Your task to perform on an android device: change alarm snooze length Image 0: 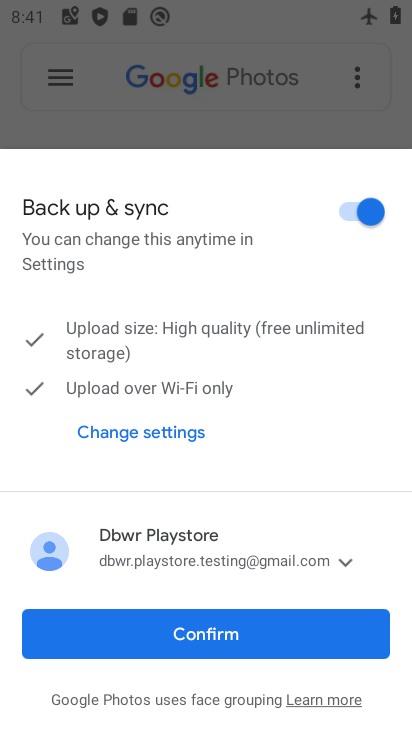
Step 0: press home button
Your task to perform on an android device: change alarm snooze length Image 1: 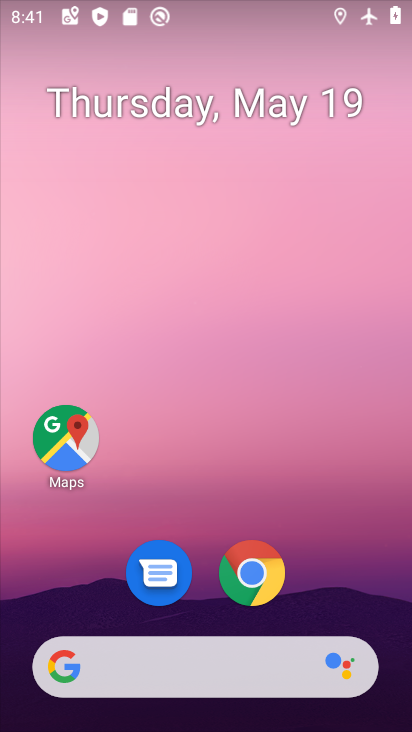
Step 1: drag from (330, 618) to (354, 7)
Your task to perform on an android device: change alarm snooze length Image 2: 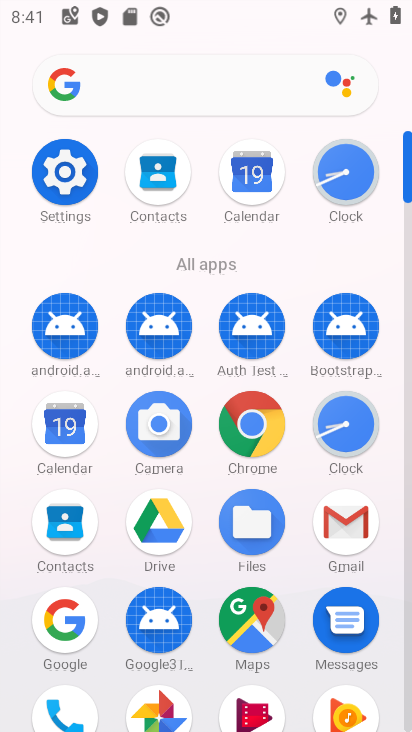
Step 2: click (340, 167)
Your task to perform on an android device: change alarm snooze length Image 3: 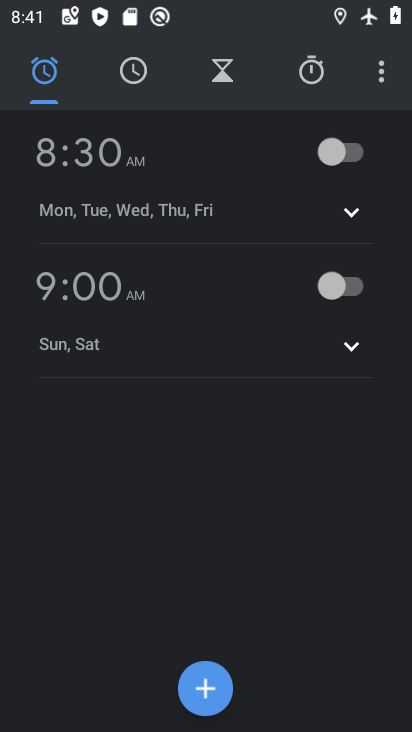
Step 3: click (382, 75)
Your task to perform on an android device: change alarm snooze length Image 4: 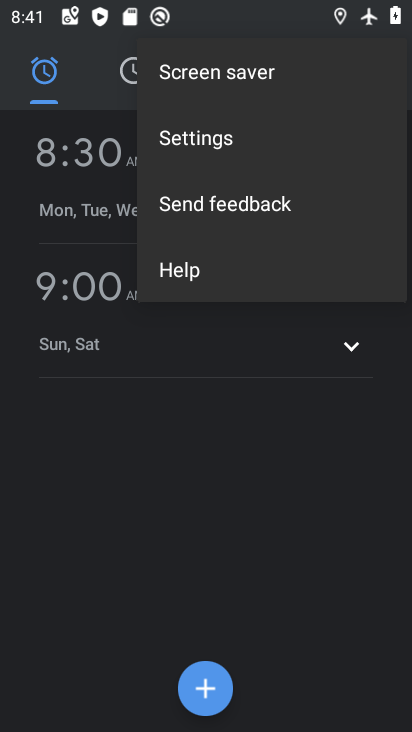
Step 4: click (207, 153)
Your task to perform on an android device: change alarm snooze length Image 5: 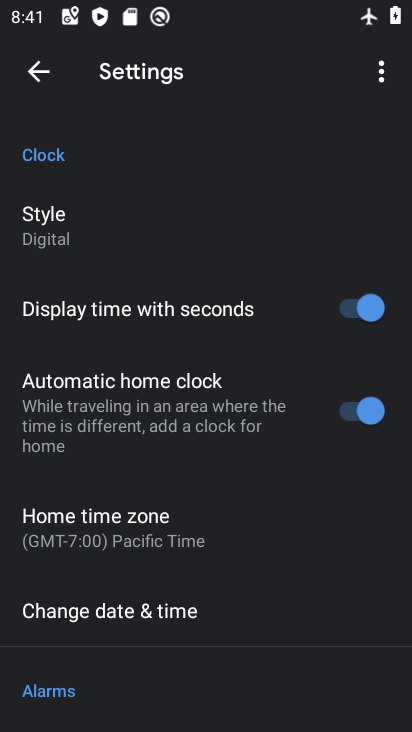
Step 5: drag from (189, 518) to (191, 5)
Your task to perform on an android device: change alarm snooze length Image 6: 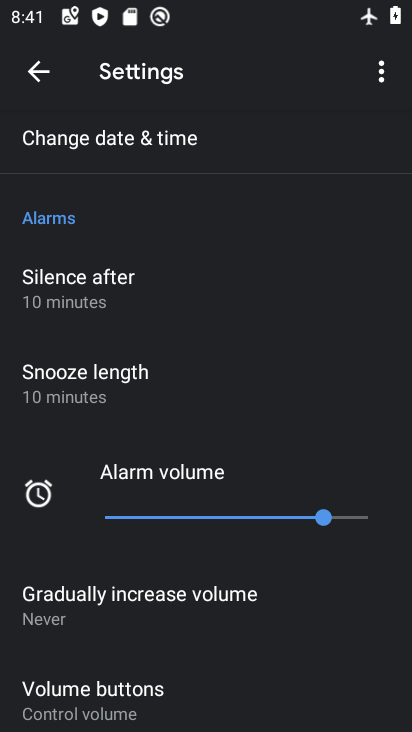
Step 6: click (17, 388)
Your task to perform on an android device: change alarm snooze length Image 7: 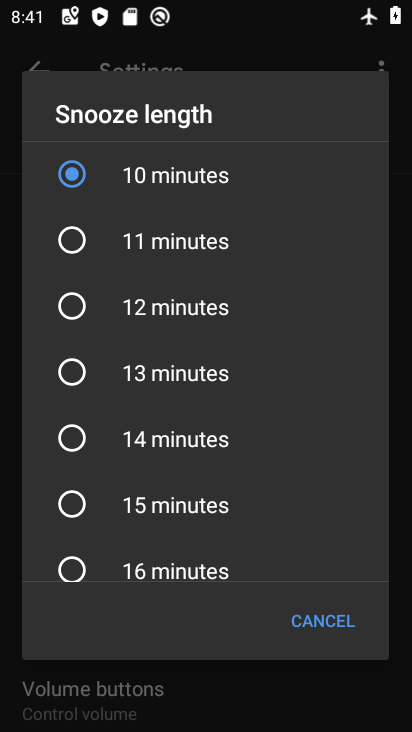
Step 7: click (76, 308)
Your task to perform on an android device: change alarm snooze length Image 8: 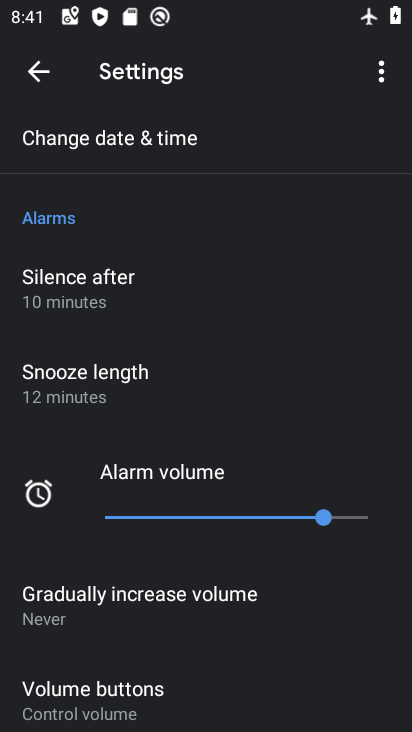
Step 8: task complete